Your task to perform on an android device: Search for Mexican restaurants on Maps Image 0: 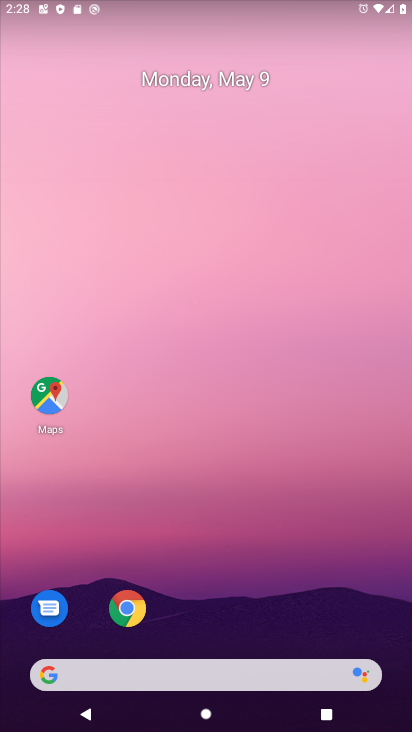
Step 0: click (44, 409)
Your task to perform on an android device: Search for Mexican restaurants on Maps Image 1: 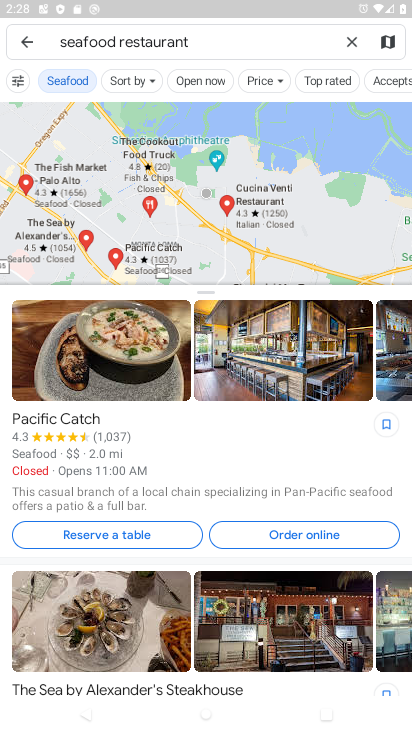
Step 1: click (214, 43)
Your task to perform on an android device: Search for Mexican restaurants on Maps Image 2: 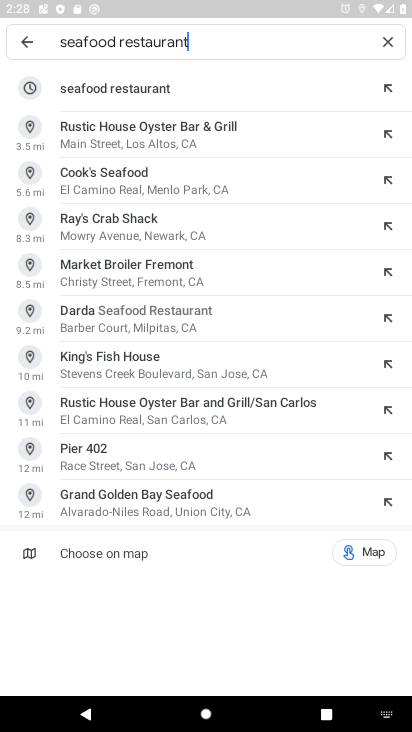
Step 2: click (382, 43)
Your task to perform on an android device: Search for Mexican restaurants on Maps Image 3: 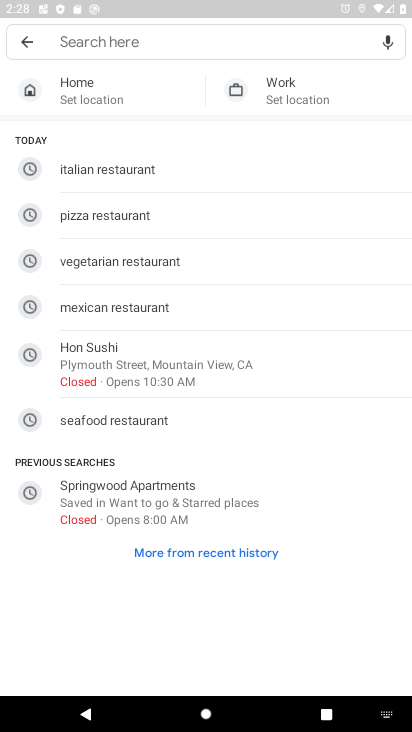
Step 3: click (136, 308)
Your task to perform on an android device: Search for Mexican restaurants on Maps Image 4: 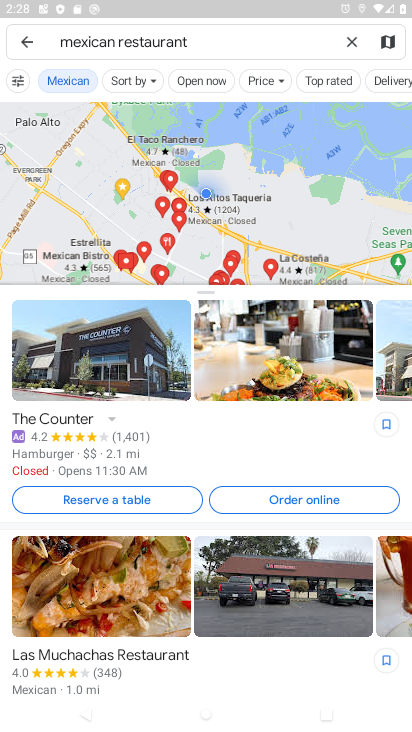
Step 4: task complete